Your task to perform on an android device: allow cookies in the chrome app Image 0: 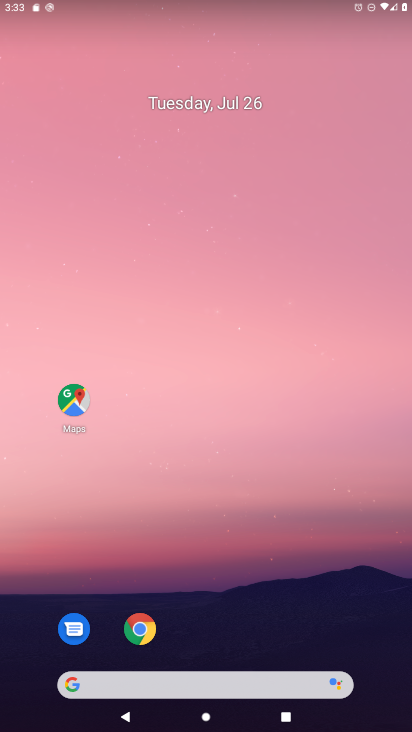
Step 0: click (129, 617)
Your task to perform on an android device: allow cookies in the chrome app Image 1: 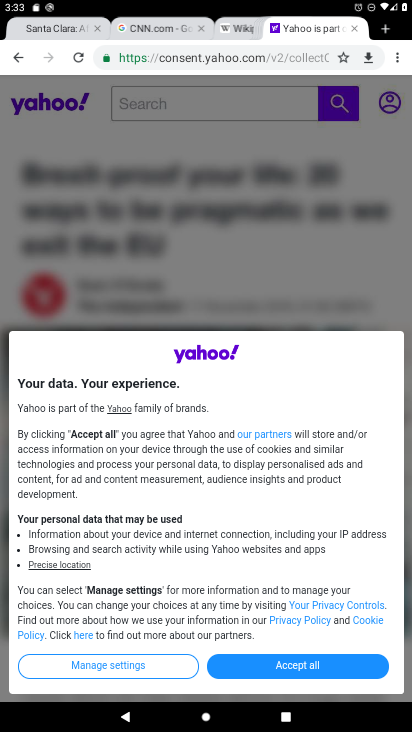
Step 1: click (396, 59)
Your task to perform on an android device: allow cookies in the chrome app Image 2: 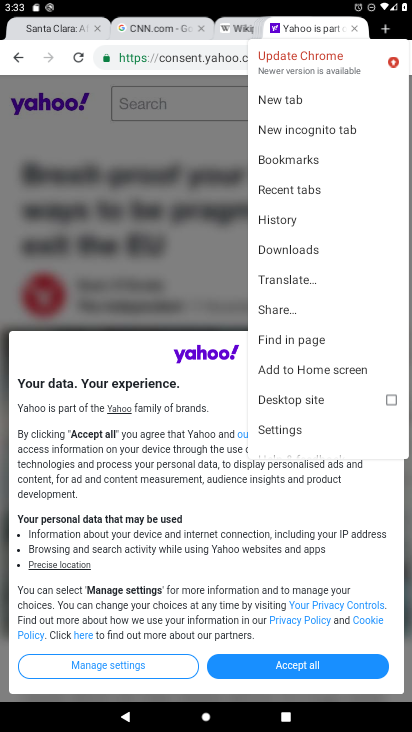
Step 2: click (310, 428)
Your task to perform on an android device: allow cookies in the chrome app Image 3: 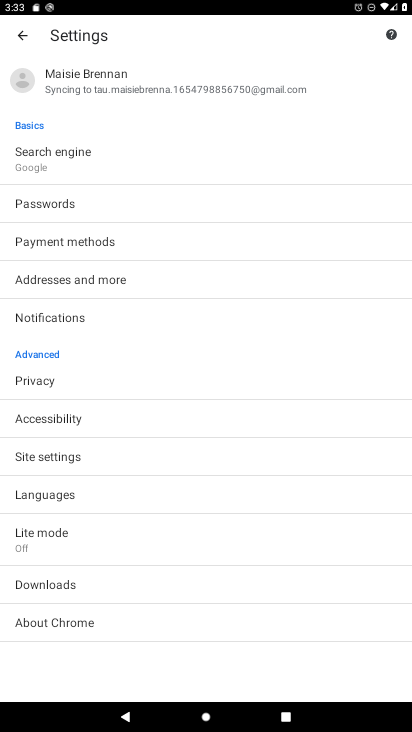
Step 3: click (61, 462)
Your task to perform on an android device: allow cookies in the chrome app Image 4: 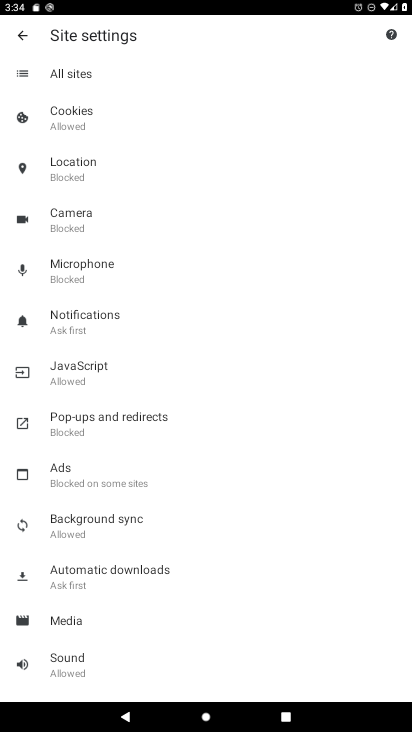
Step 4: click (95, 123)
Your task to perform on an android device: allow cookies in the chrome app Image 5: 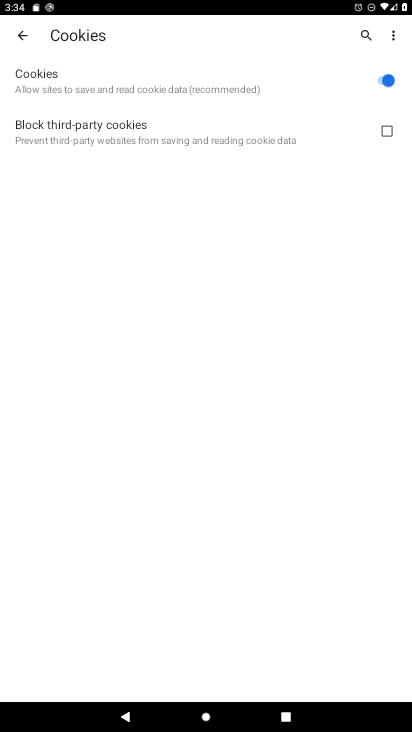
Step 5: task complete